Your task to perform on an android device: Open notification settings Image 0: 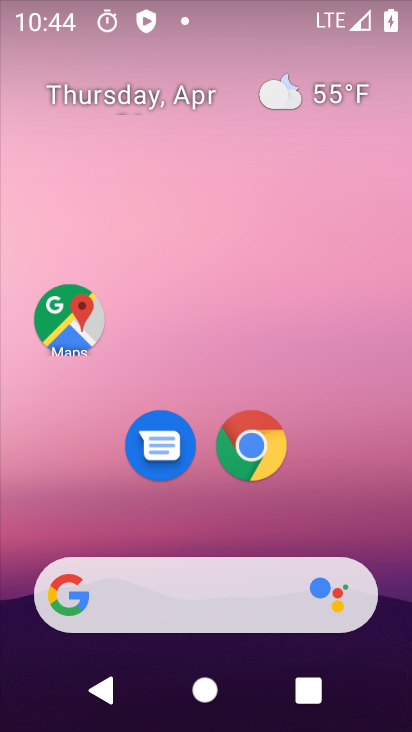
Step 0: drag from (383, 530) to (332, 20)
Your task to perform on an android device: Open notification settings Image 1: 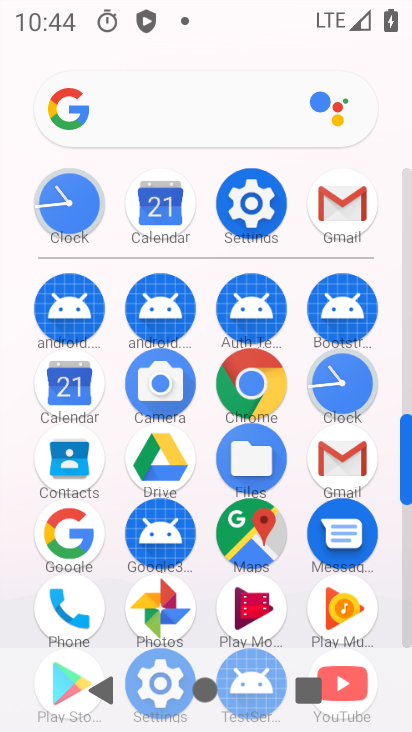
Step 1: click (242, 204)
Your task to perform on an android device: Open notification settings Image 2: 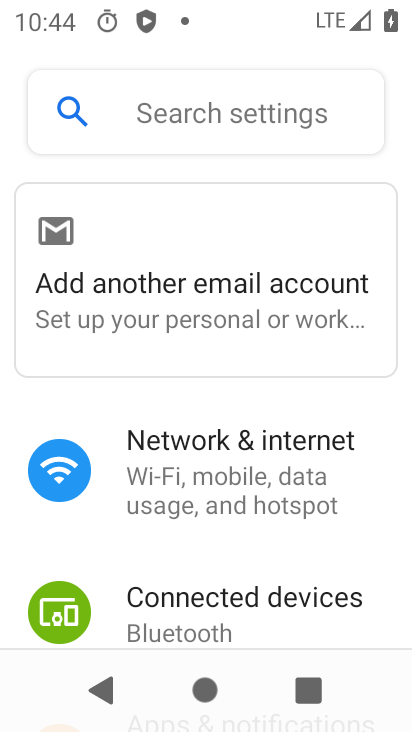
Step 2: drag from (397, 541) to (376, 213)
Your task to perform on an android device: Open notification settings Image 3: 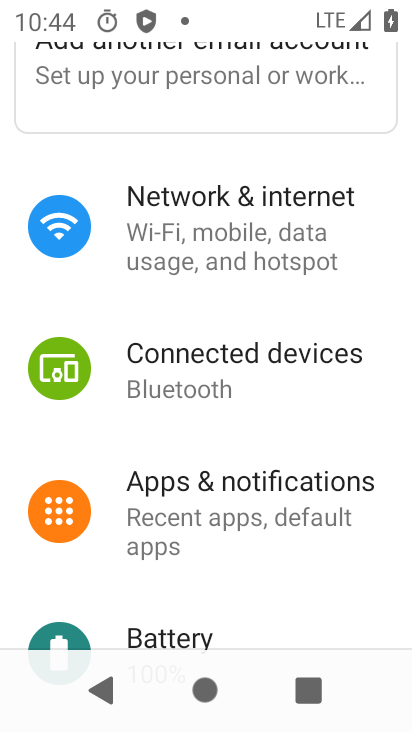
Step 3: click (228, 495)
Your task to perform on an android device: Open notification settings Image 4: 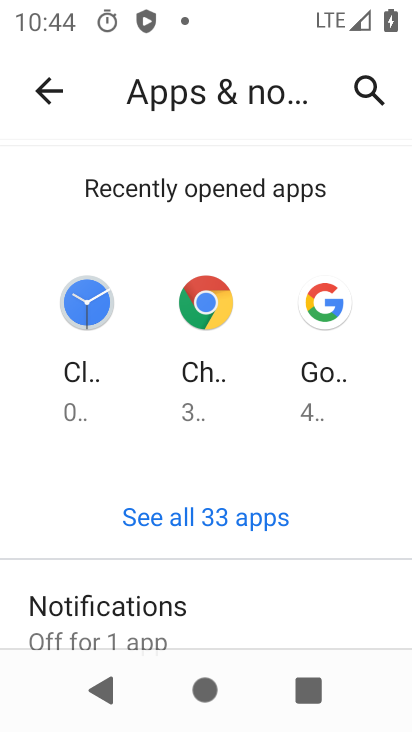
Step 4: task complete